Your task to perform on an android device: open a bookmark in the chrome app Image 0: 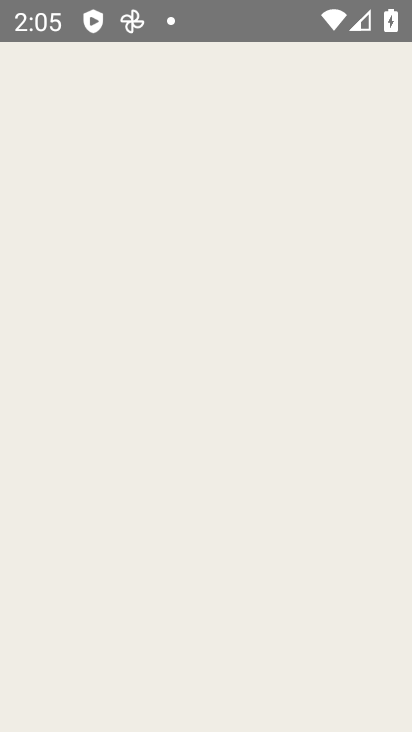
Step 0: press home button
Your task to perform on an android device: open a bookmark in the chrome app Image 1: 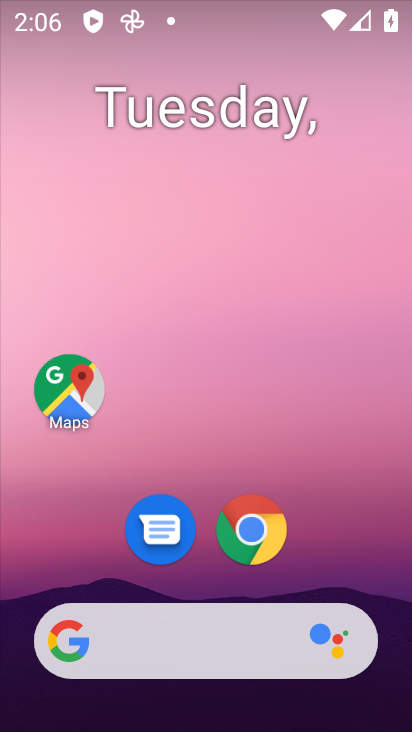
Step 1: drag from (402, 612) to (284, 87)
Your task to perform on an android device: open a bookmark in the chrome app Image 2: 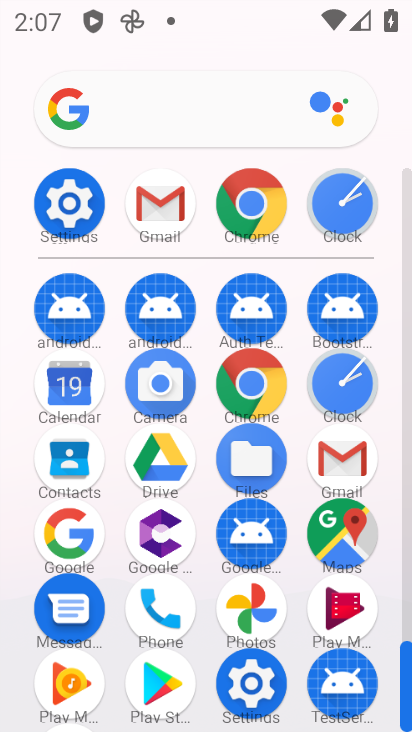
Step 2: click (256, 378)
Your task to perform on an android device: open a bookmark in the chrome app Image 3: 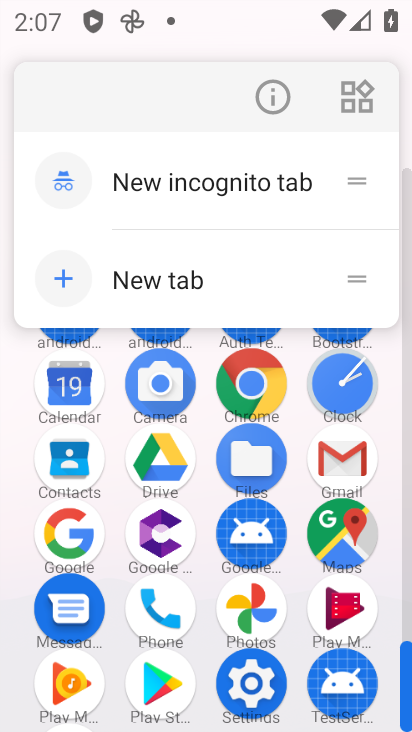
Step 3: click (256, 378)
Your task to perform on an android device: open a bookmark in the chrome app Image 4: 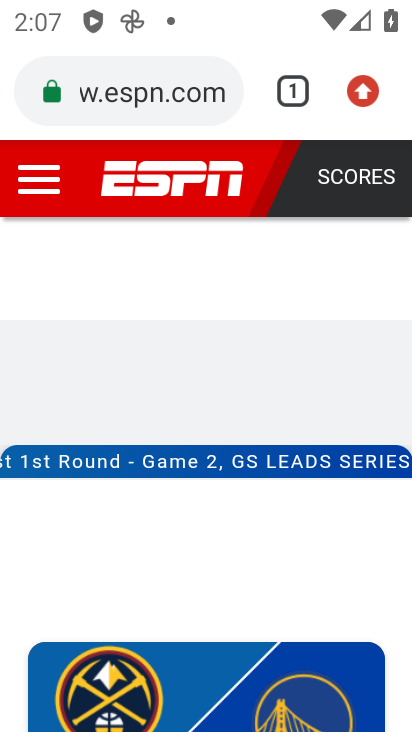
Step 4: click (364, 86)
Your task to perform on an android device: open a bookmark in the chrome app Image 5: 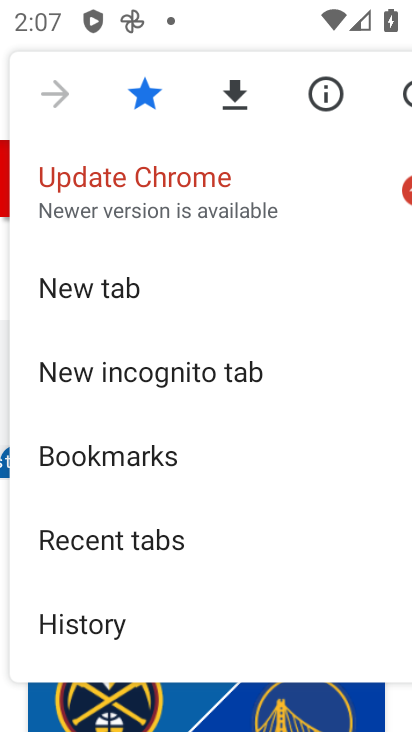
Step 5: click (147, 468)
Your task to perform on an android device: open a bookmark in the chrome app Image 6: 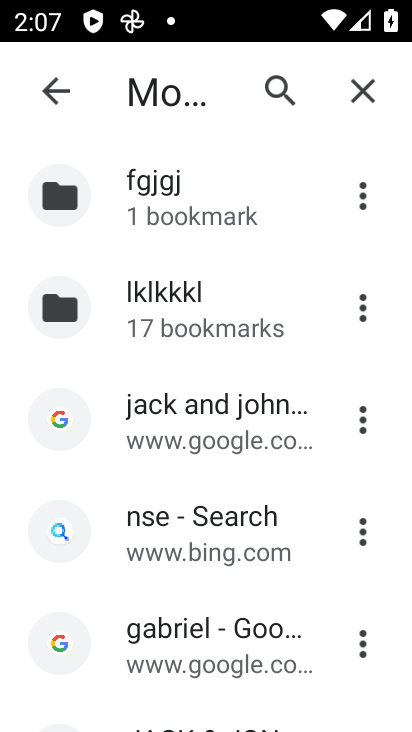
Step 6: task complete